Your task to perform on an android device: check android version Image 0: 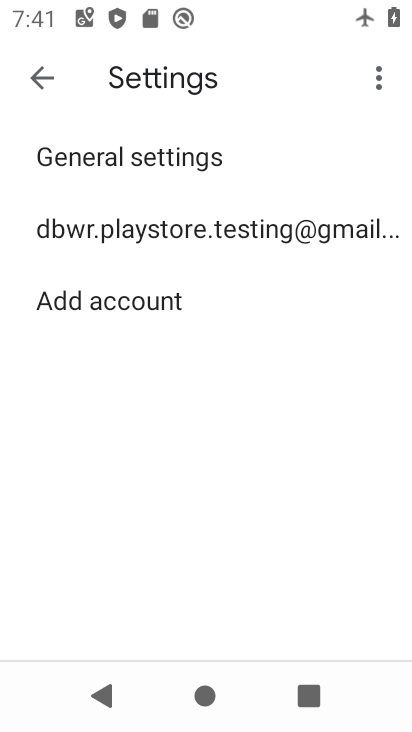
Step 0: press home button
Your task to perform on an android device: check android version Image 1: 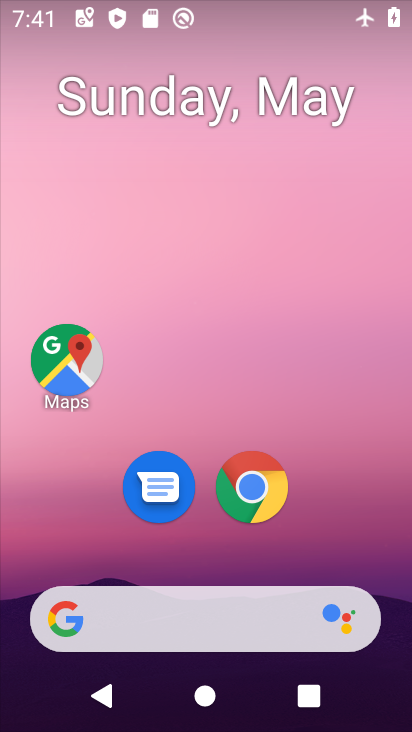
Step 1: drag from (389, 558) to (352, 133)
Your task to perform on an android device: check android version Image 2: 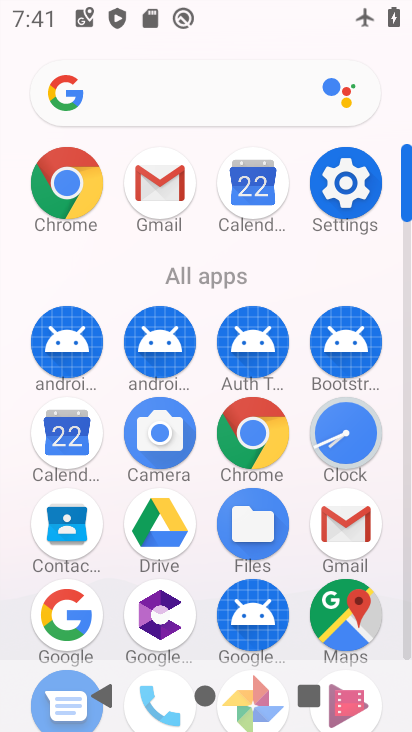
Step 2: click (360, 197)
Your task to perform on an android device: check android version Image 3: 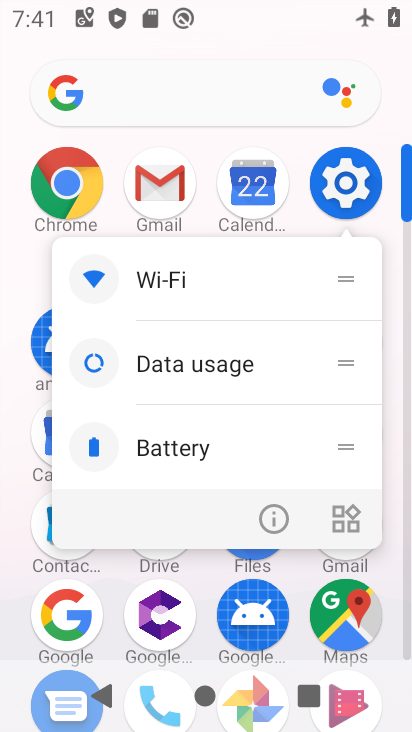
Step 3: click (360, 197)
Your task to perform on an android device: check android version Image 4: 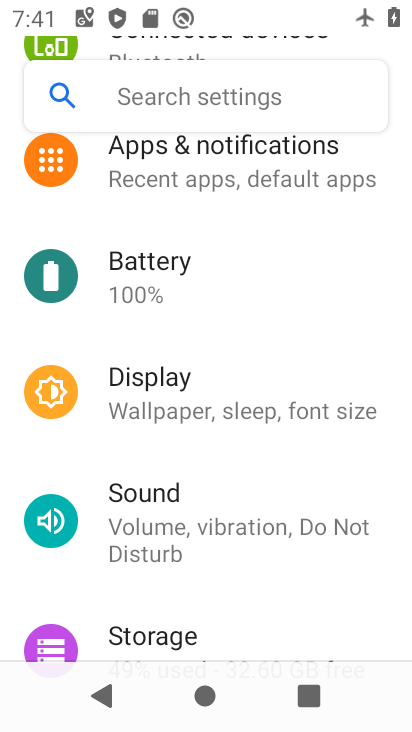
Step 4: drag from (382, 269) to (377, 406)
Your task to perform on an android device: check android version Image 5: 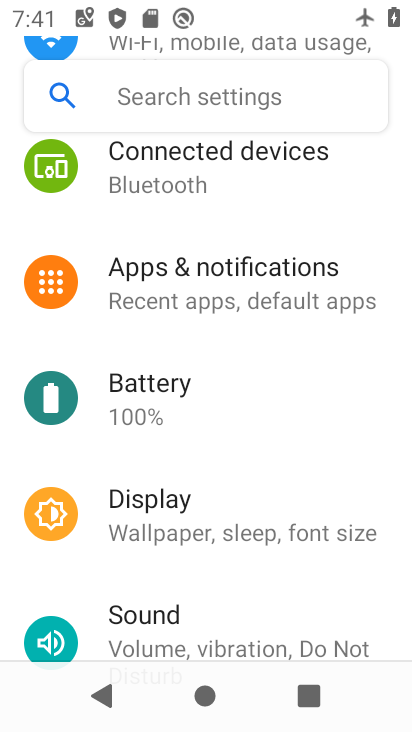
Step 5: drag from (369, 243) to (369, 393)
Your task to perform on an android device: check android version Image 6: 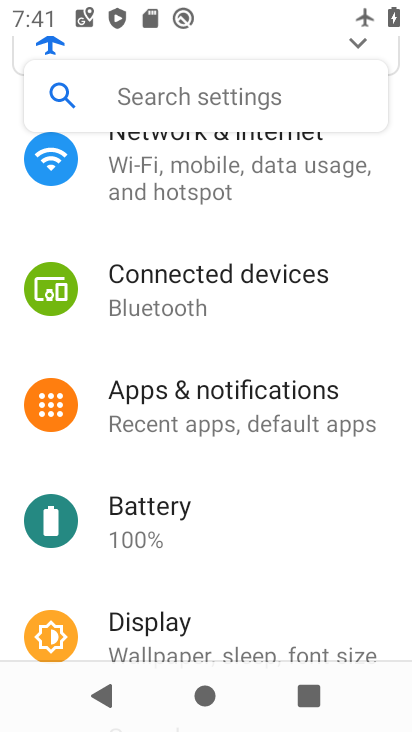
Step 6: drag from (367, 220) to (367, 340)
Your task to perform on an android device: check android version Image 7: 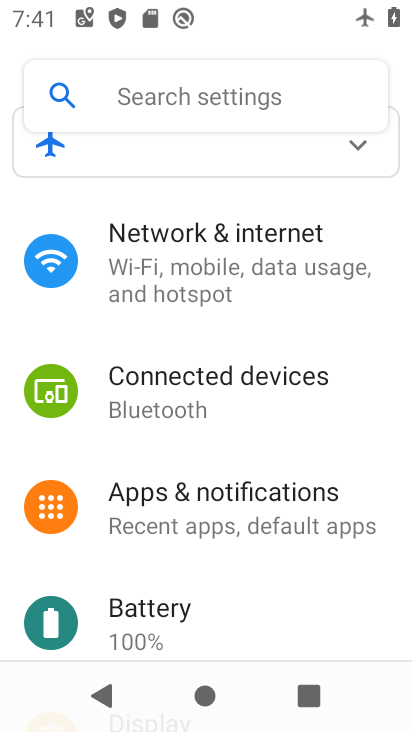
Step 7: drag from (384, 444) to (388, 346)
Your task to perform on an android device: check android version Image 8: 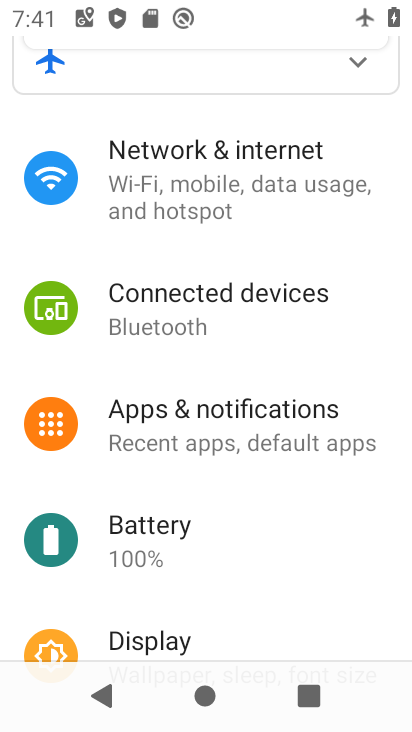
Step 8: drag from (389, 436) to (375, 298)
Your task to perform on an android device: check android version Image 9: 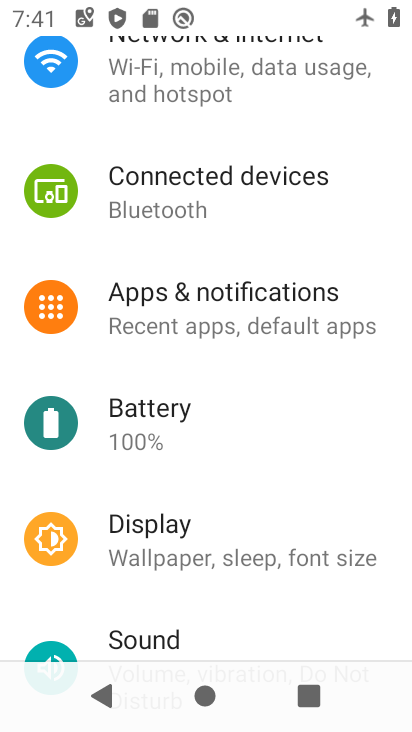
Step 9: drag from (373, 488) to (378, 350)
Your task to perform on an android device: check android version Image 10: 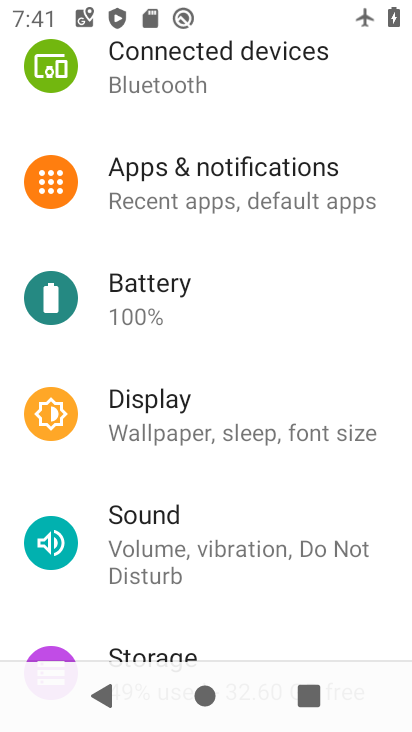
Step 10: drag from (377, 481) to (380, 363)
Your task to perform on an android device: check android version Image 11: 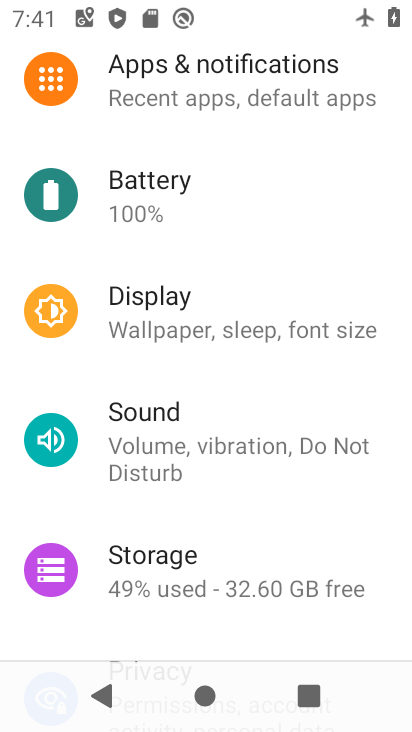
Step 11: drag from (376, 458) to (382, 353)
Your task to perform on an android device: check android version Image 12: 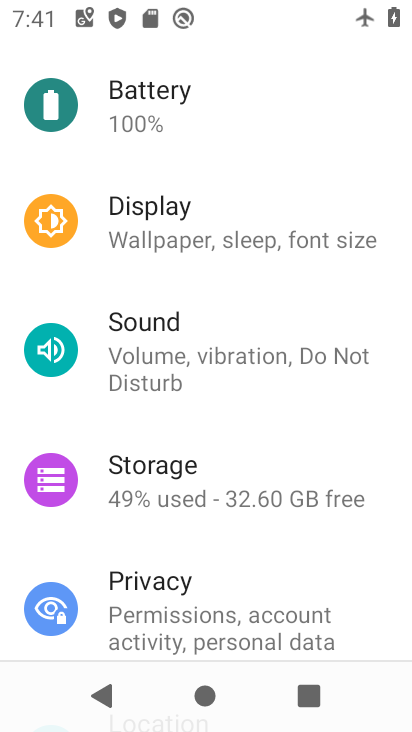
Step 12: drag from (382, 454) to (383, 358)
Your task to perform on an android device: check android version Image 13: 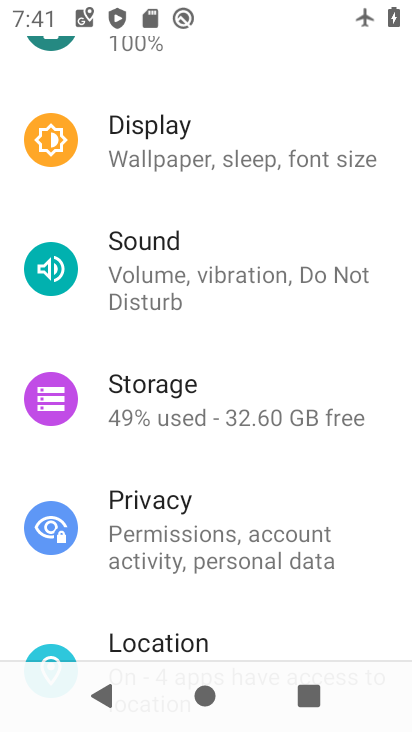
Step 13: drag from (384, 458) to (385, 378)
Your task to perform on an android device: check android version Image 14: 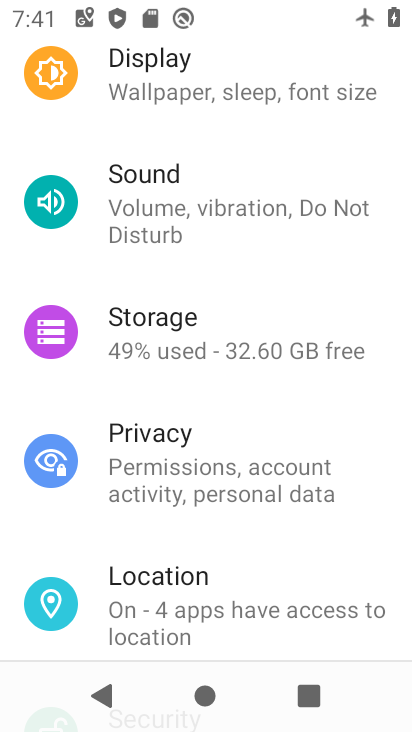
Step 14: drag from (371, 459) to (375, 382)
Your task to perform on an android device: check android version Image 15: 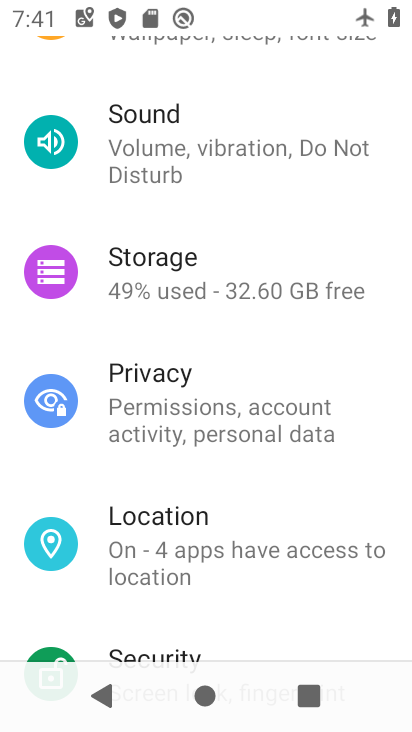
Step 15: drag from (374, 494) to (378, 400)
Your task to perform on an android device: check android version Image 16: 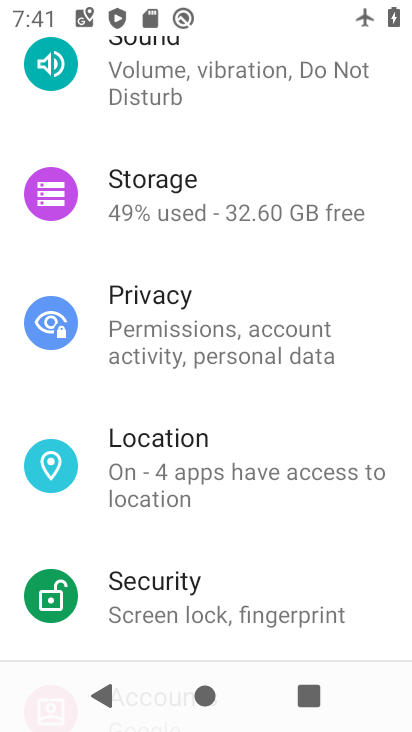
Step 16: drag from (381, 512) to (376, 406)
Your task to perform on an android device: check android version Image 17: 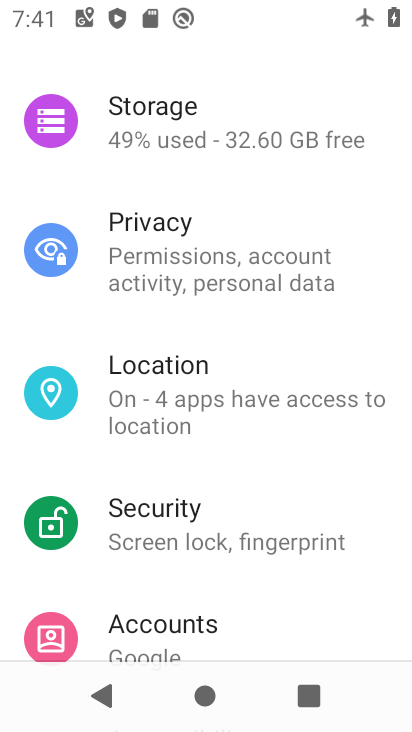
Step 17: drag from (367, 508) to (366, 413)
Your task to perform on an android device: check android version Image 18: 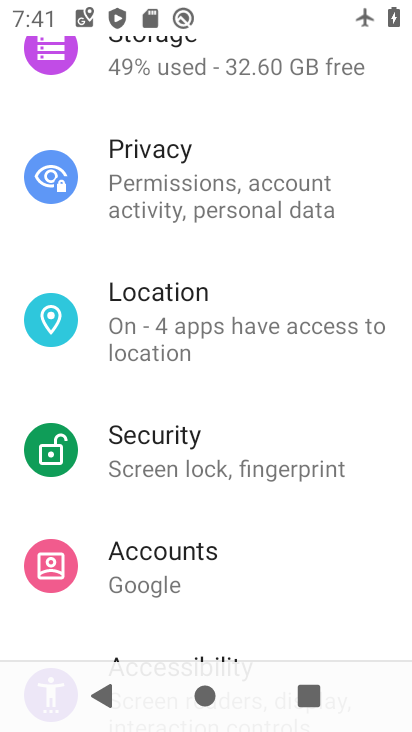
Step 18: drag from (368, 538) to (372, 442)
Your task to perform on an android device: check android version Image 19: 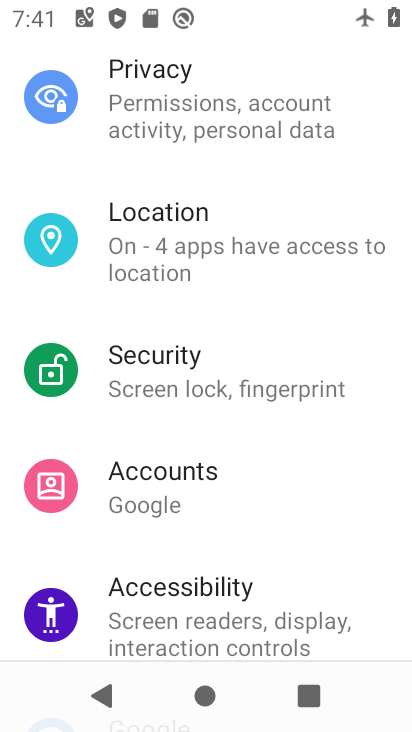
Step 19: drag from (378, 548) to (375, 455)
Your task to perform on an android device: check android version Image 20: 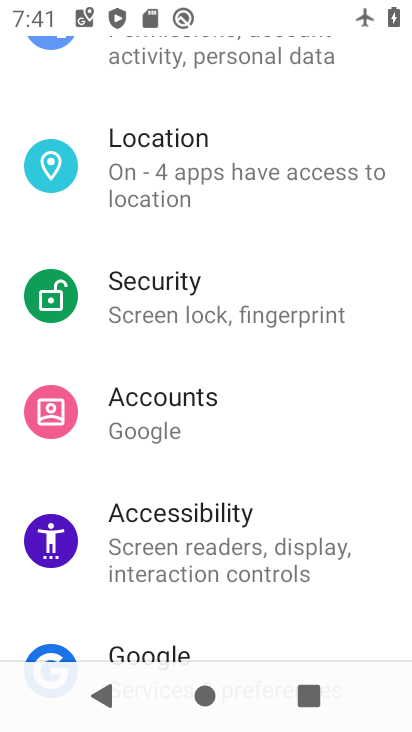
Step 20: drag from (363, 530) to (369, 435)
Your task to perform on an android device: check android version Image 21: 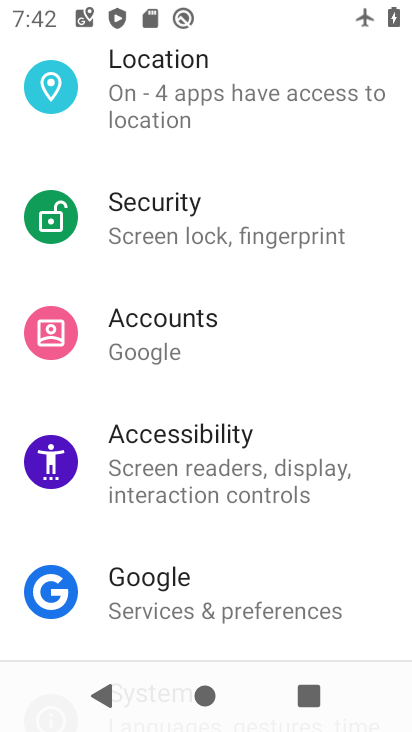
Step 21: drag from (368, 528) to (371, 440)
Your task to perform on an android device: check android version Image 22: 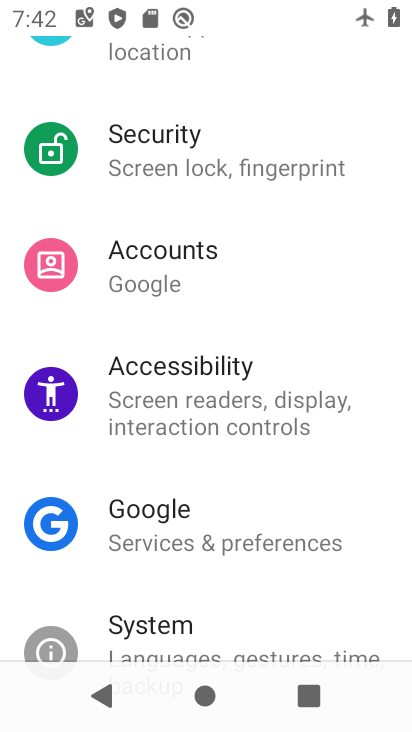
Step 22: drag from (374, 515) to (377, 442)
Your task to perform on an android device: check android version Image 23: 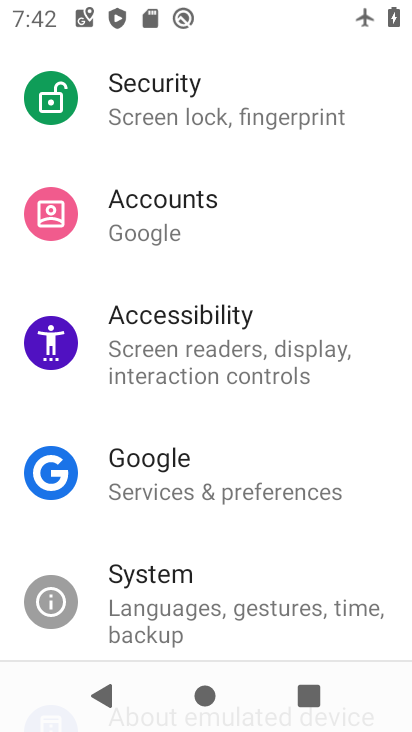
Step 23: drag from (373, 542) to (372, 439)
Your task to perform on an android device: check android version Image 24: 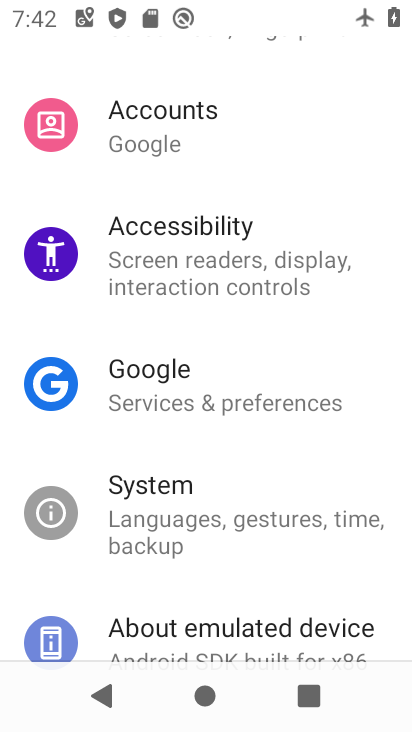
Step 24: drag from (377, 607) to (379, 448)
Your task to perform on an android device: check android version Image 25: 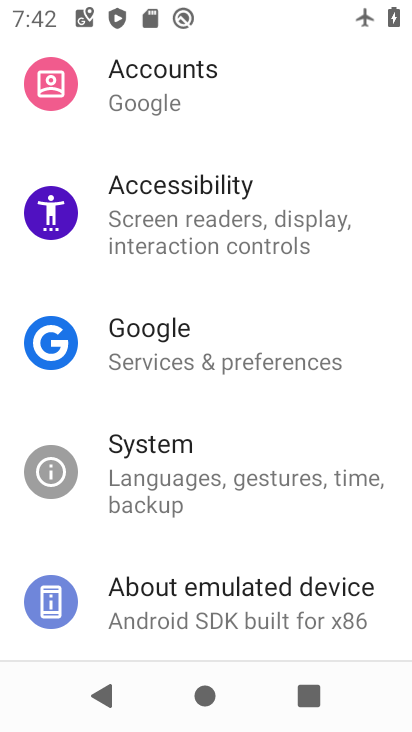
Step 25: click (236, 488)
Your task to perform on an android device: check android version Image 26: 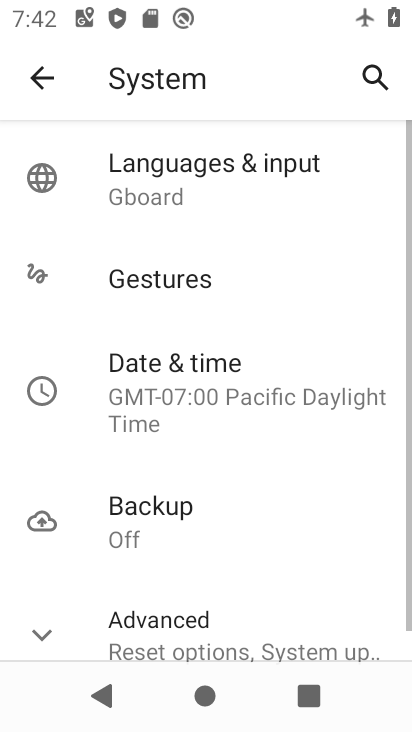
Step 26: drag from (284, 592) to (286, 436)
Your task to perform on an android device: check android version Image 27: 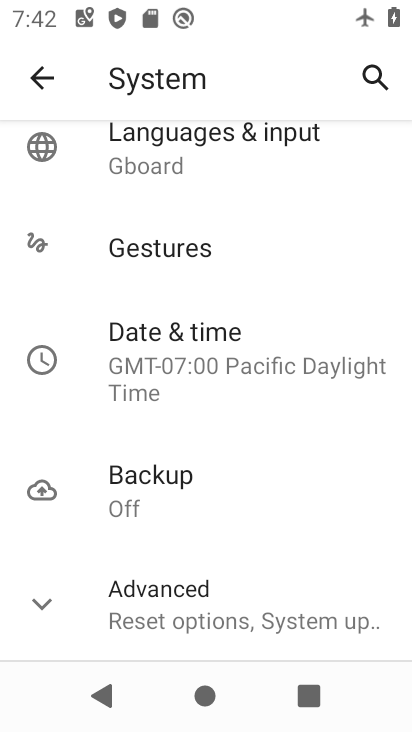
Step 27: click (285, 620)
Your task to perform on an android device: check android version Image 28: 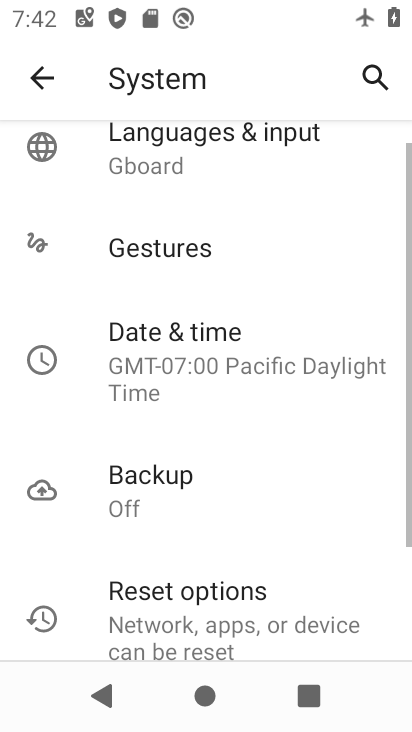
Step 28: drag from (324, 602) to (319, 488)
Your task to perform on an android device: check android version Image 29: 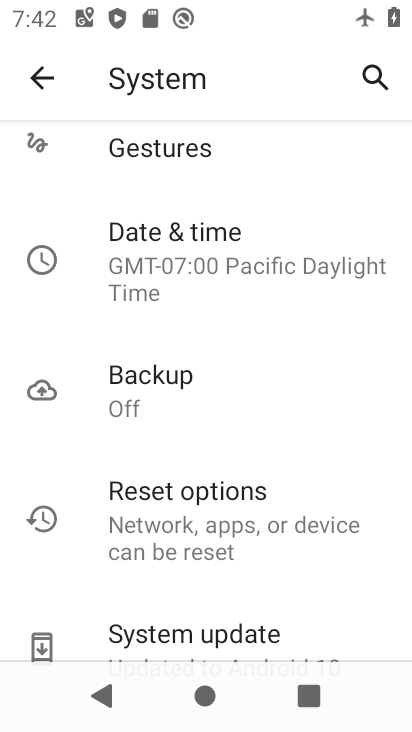
Step 29: drag from (327, 615) to (330, 464)
Your task to perform on an android device: check android version Image 30: 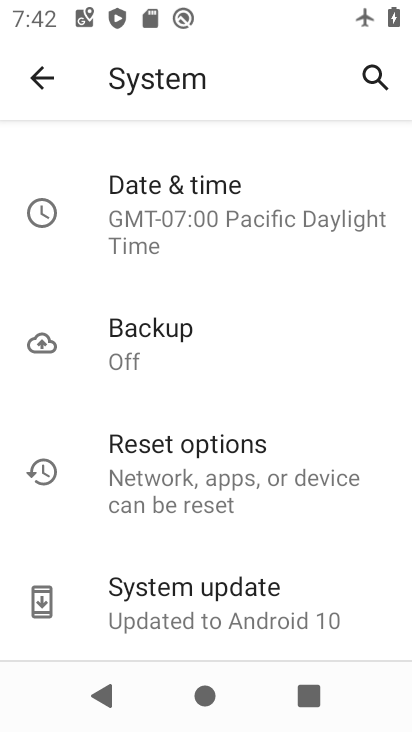
Step 30: click (243, 614)
Your task to perform on an android device: check android version Image 31: 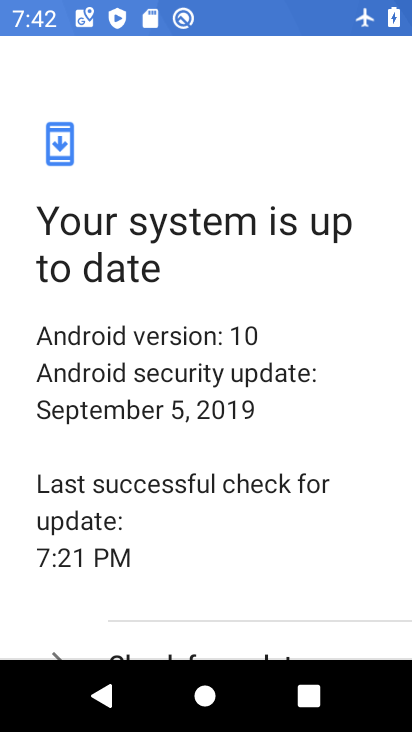
Step 31: task complete